Your task to perform on an android device: Search for pizza restaurants on Maps Image 0: 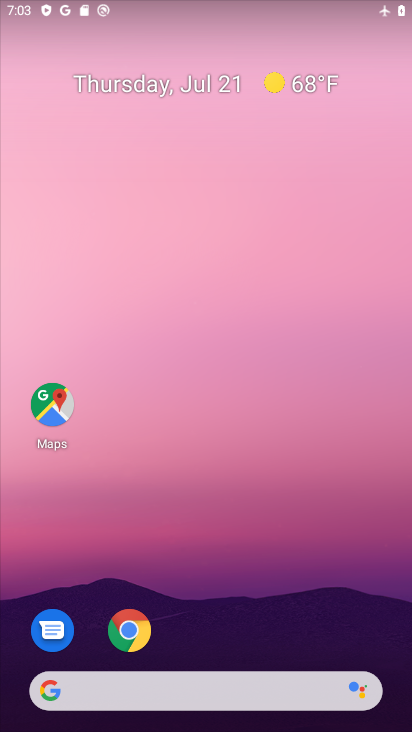
Step 0: drag from (236, 645) to (148, 211)
Your task to perform on an android device: Search for pizza restaurants on Maps Image 1: 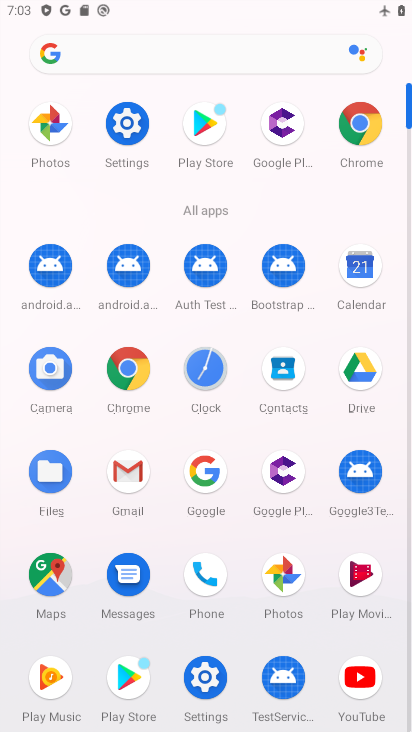
Step 1: click (45, 568)
Your task to perform on an android device: Search for pizza restaurants on Maps Image 2: 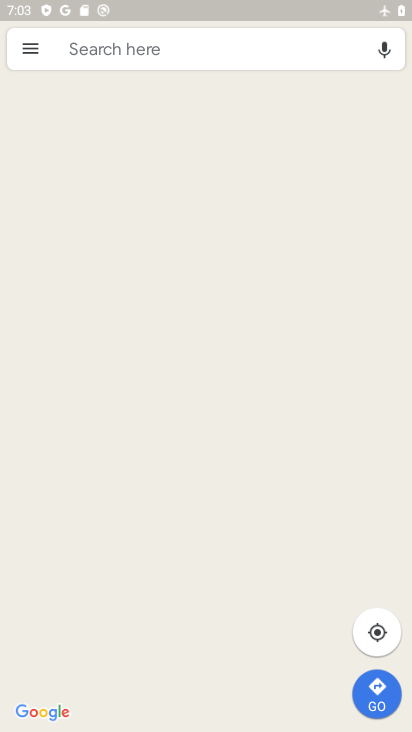
Step 2: click (115, 40)
Your task to perform on an android device: Search for pizza restaurants on Maps Image 3: 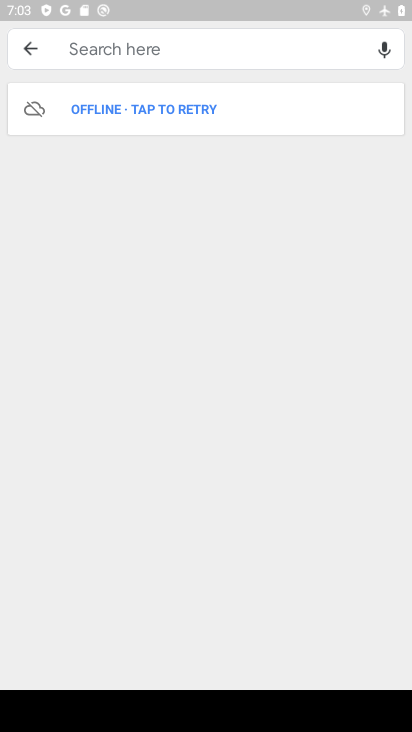
Step 3: type "pizza restaurants"
Your task to perform on an android device: Search for pizza restaurants on Maps Image 4: 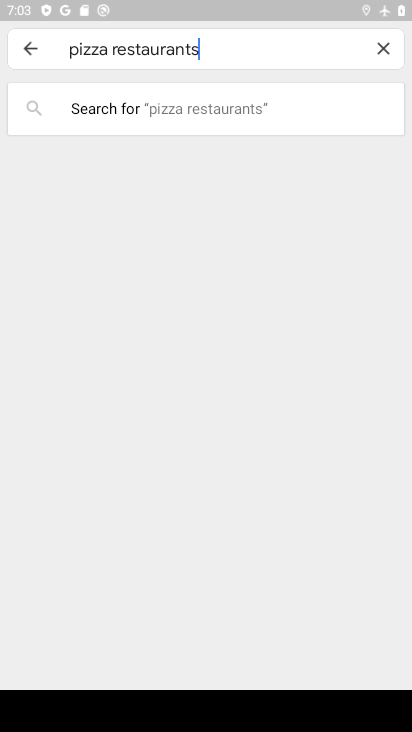
Step 4: press enter
Your task to perform on an android device: Search for pizza restaurants on Maps Image 5: 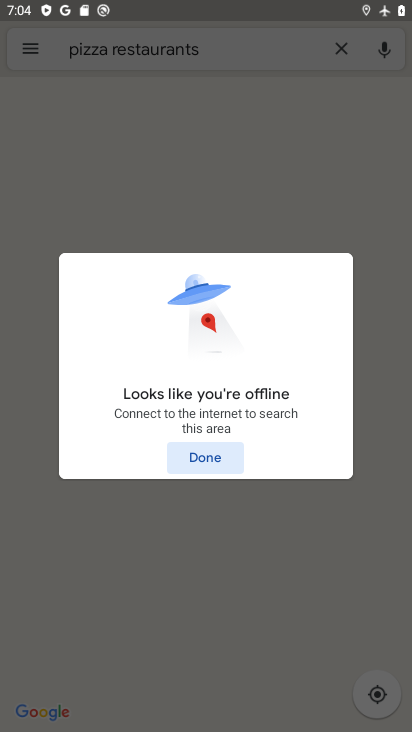
Step 5: task complete